Your task to perform on an android device: all mails in gmail Image 0: 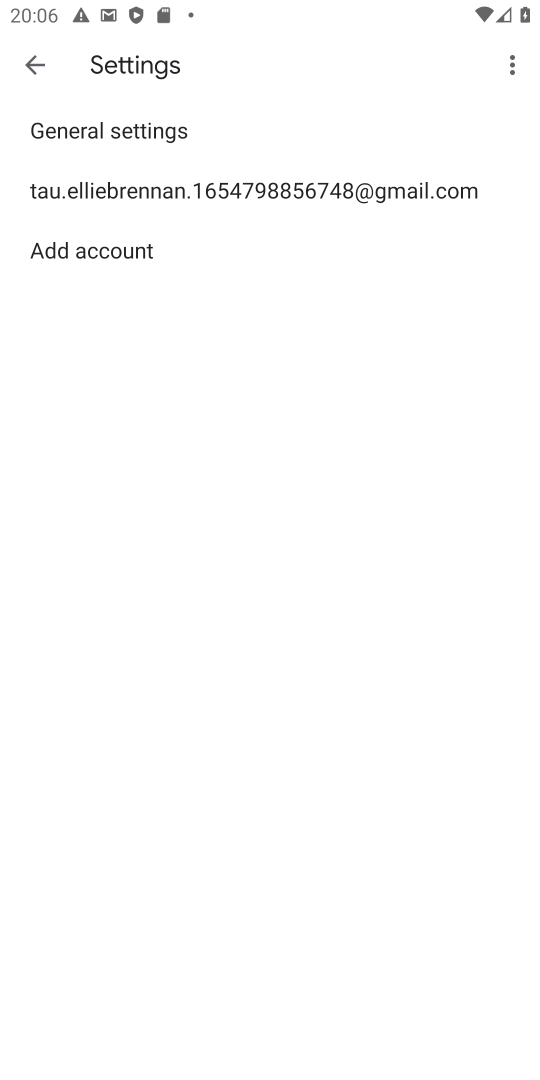
Step 0: press home button
Your task to perform on an android device: all mails in gmail Image 1: 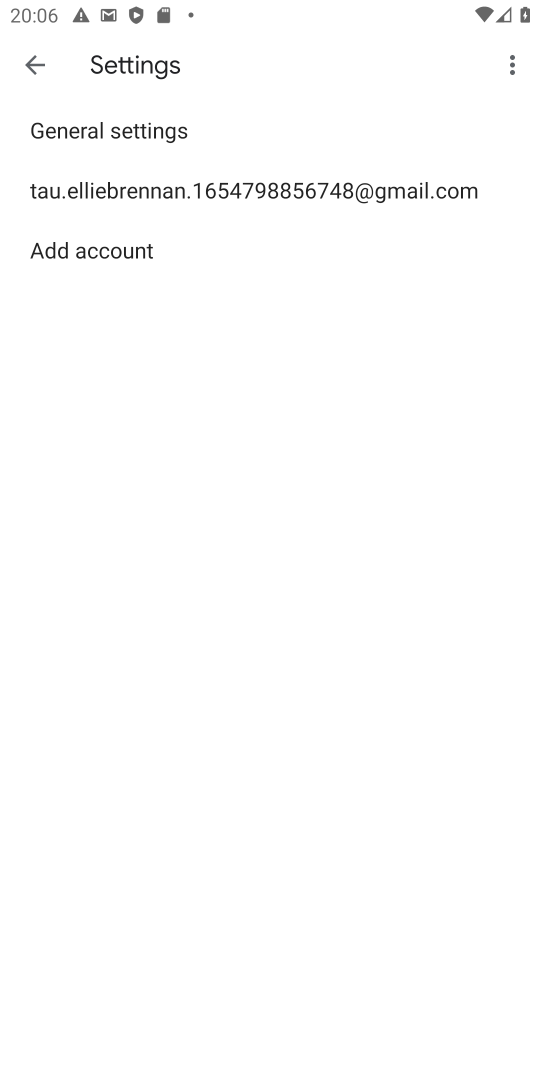
Step 1: press home button
Your task to perform on an android device: all mails in gmail Image 2: 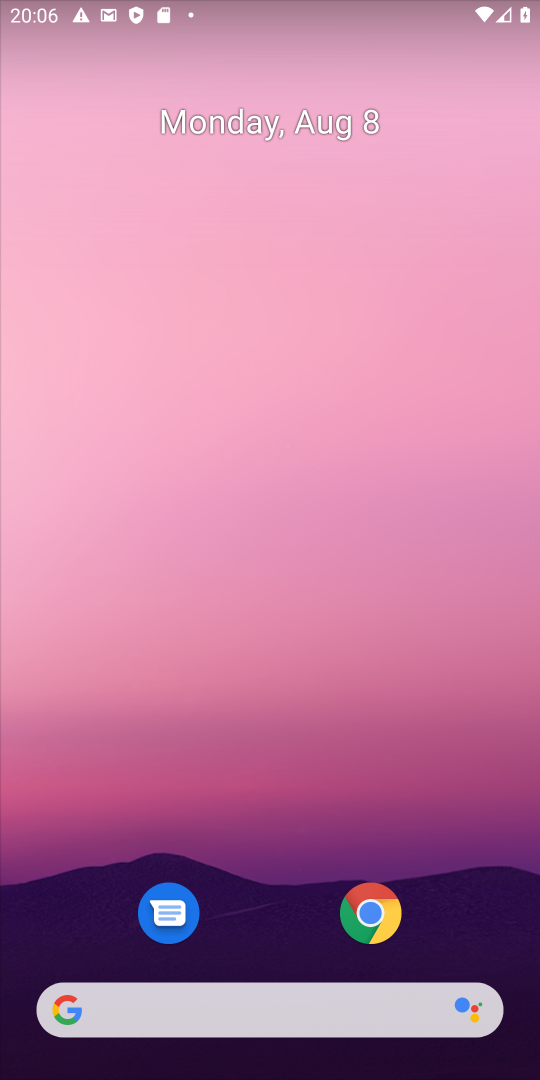
Step 2: drag from (241, 888) to (171, 562)
Your task to perform on an android device: all mails in gmail Image 3: 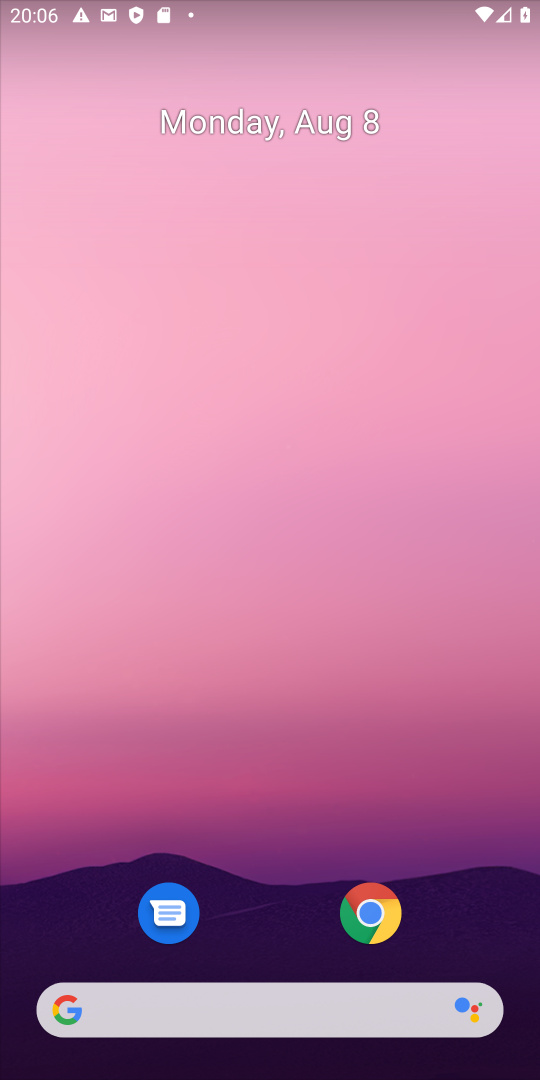
Step 3: drag from (299, 900) to (44, 846)
Your task to perform on an android device: all mails in gmail Image 4: 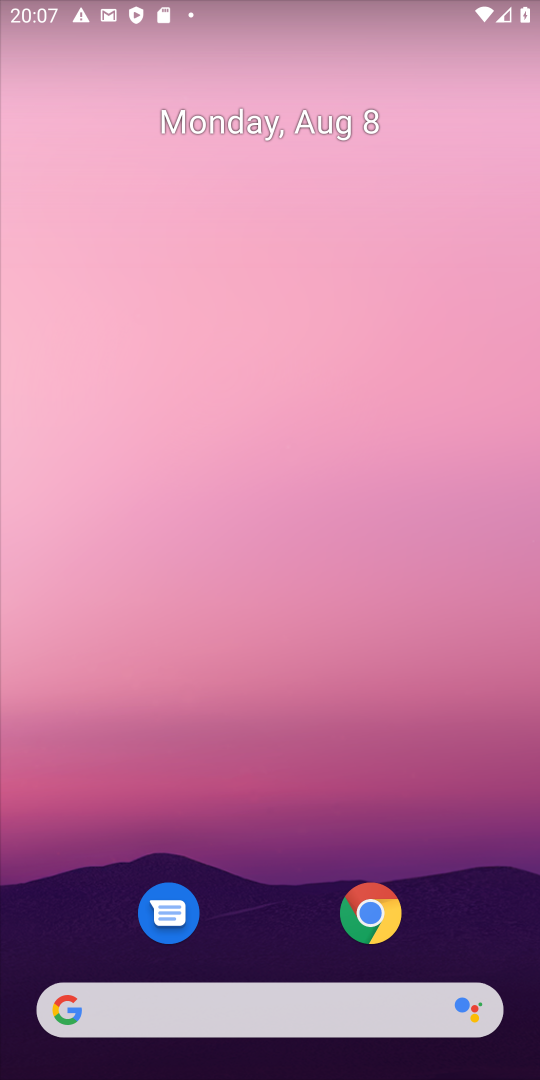
Step 4: drag from (289, 911) to (268, 18)
Your task to perform on an android device: all mails in gmail Image 5: 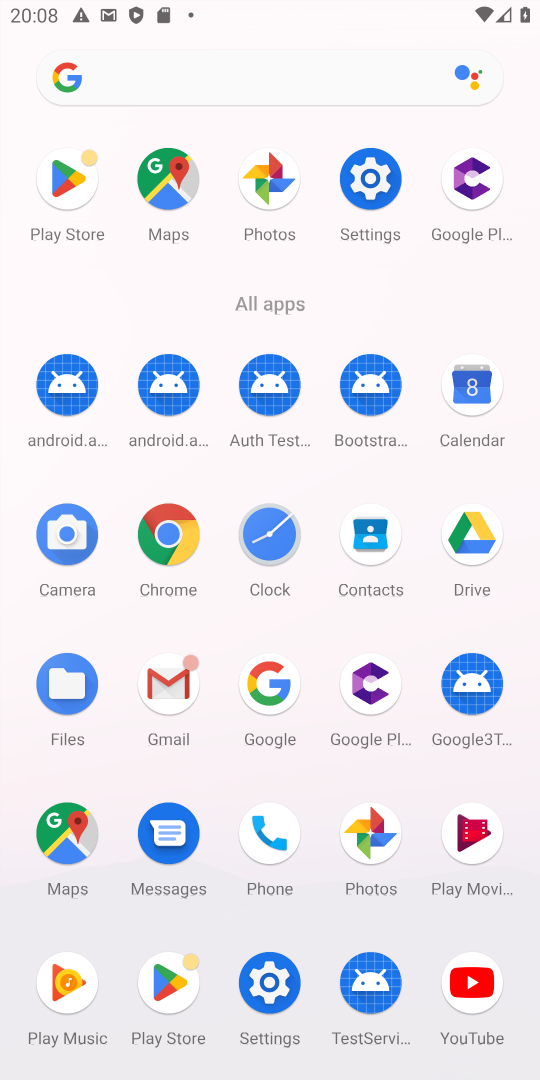
Step 5: click (181, 689)
Your task to perform on an android device: all mails in gmail Image 6: 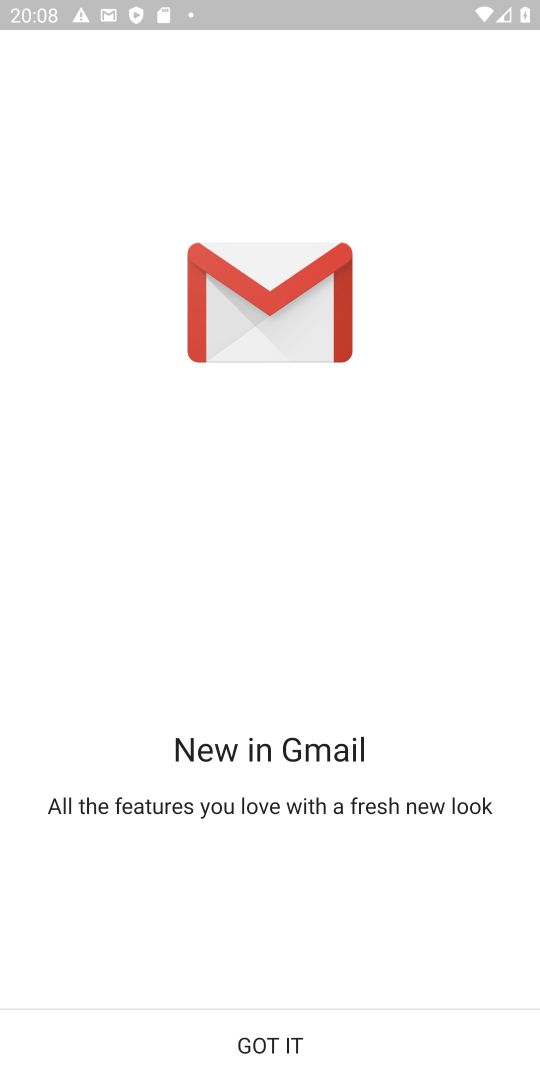
Step 6: click (285, 1052)
Your task to perform on an android device: all mails in gmail Image 7: 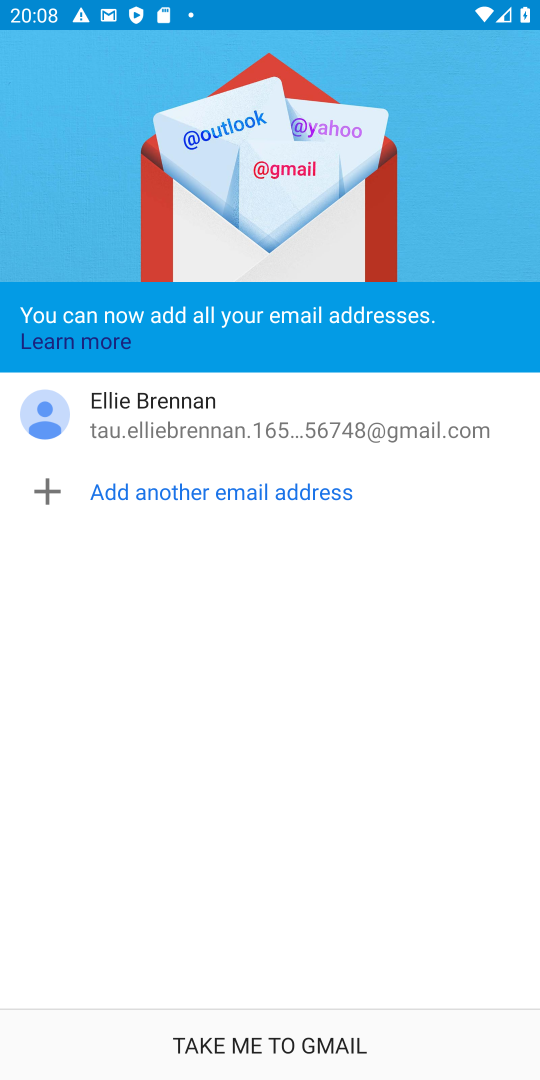
Step 7: click (272, 1052)
Your task to perform on an android device: all mails in gmail Image 8: 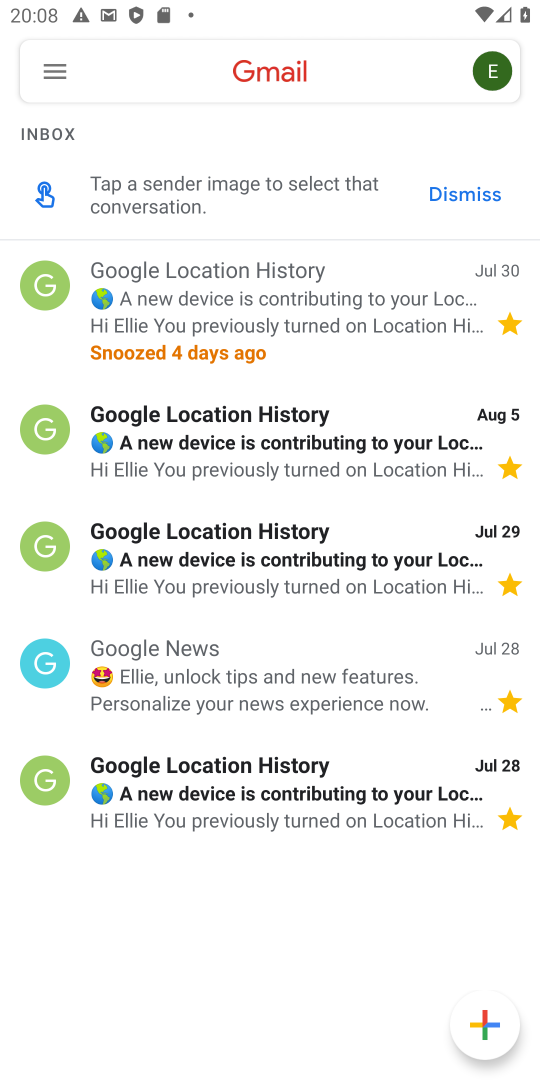
Step 8: click (48, 55)
Your task to perform on an android device: all mails in gmail Image 9: 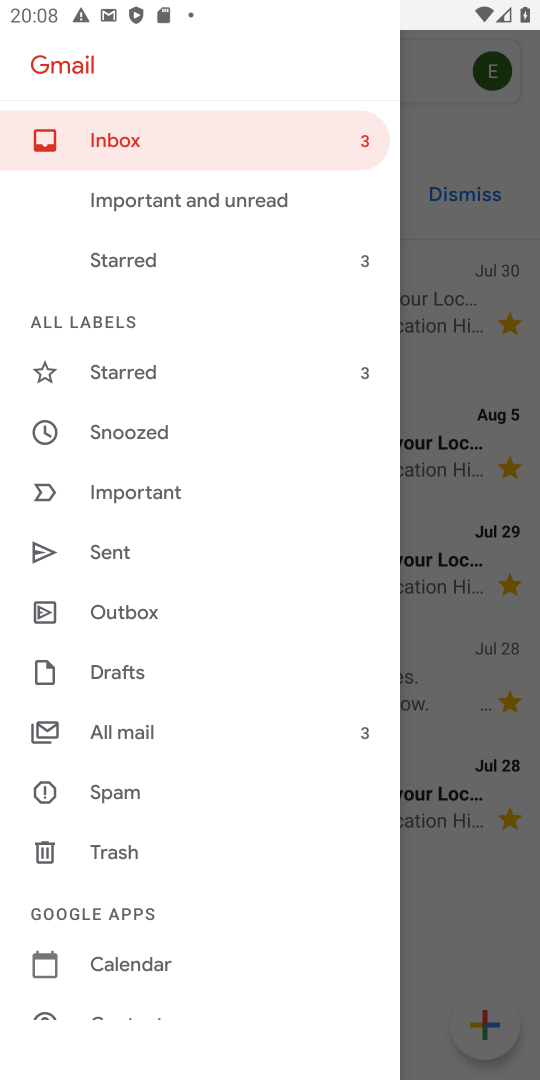
Step 9: click (84, 740)
Your task to perform on an android device: all mails in gmail Image 10: 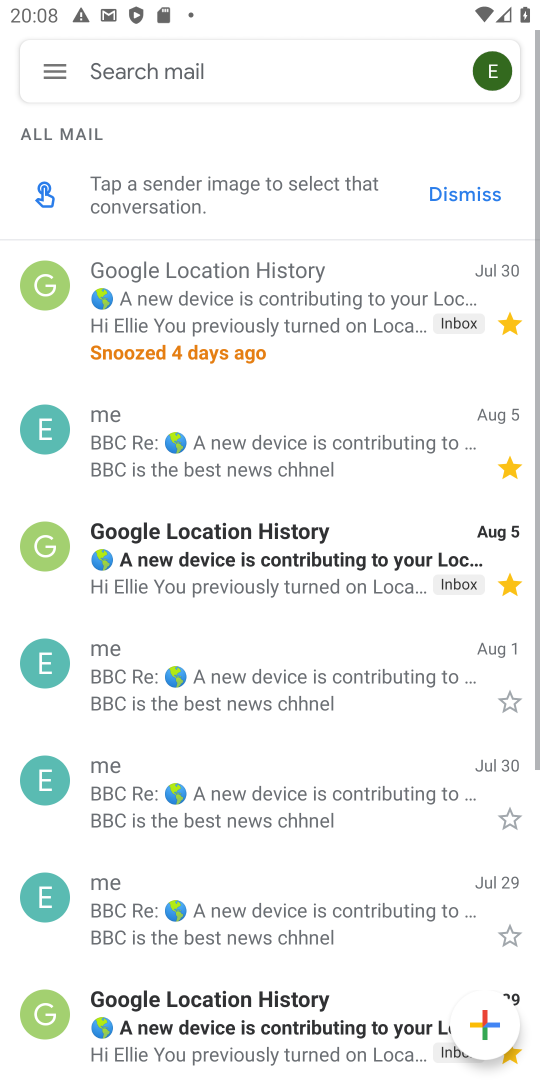
Step 10: task complete